Your task to perform on an android device: read, delete, or share a saved page in the chrome app Image 0: 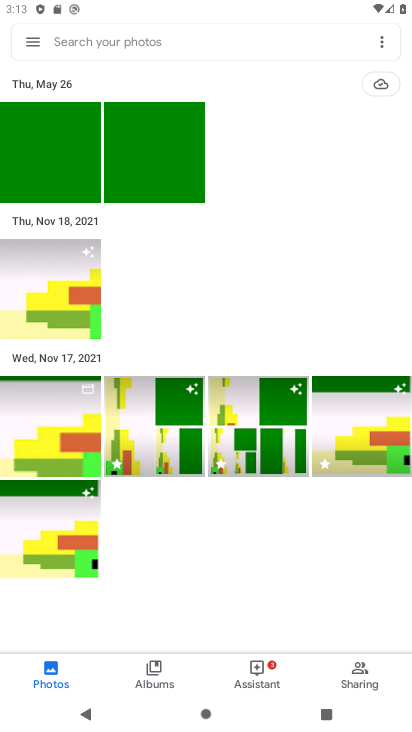
Step 0: press home button
Your task to perform on an android device: read, delete, or share a saved page in the chrome app Image 1: 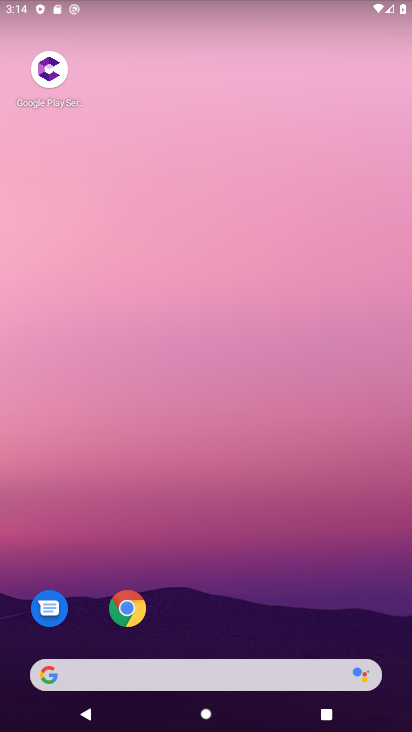
Step 1: click (113, 594)
Your task to perform on an android device: read, delete, or share a saved page in the chrome app Image 2: 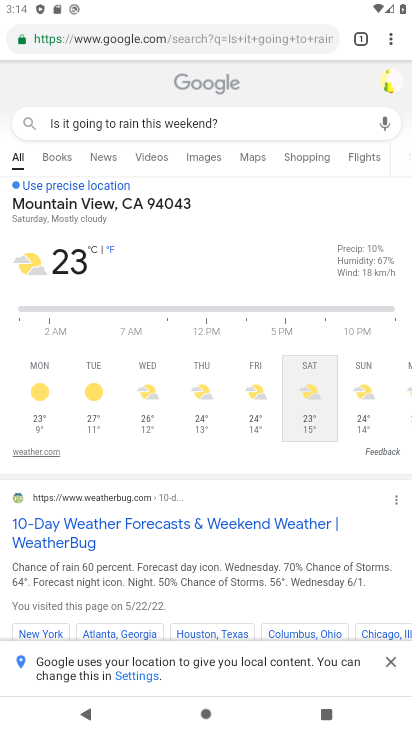
Step 2: click (392, 43)
Your task to perform on an android device: read, delete, or share a saved page in the chrome app Image 3: 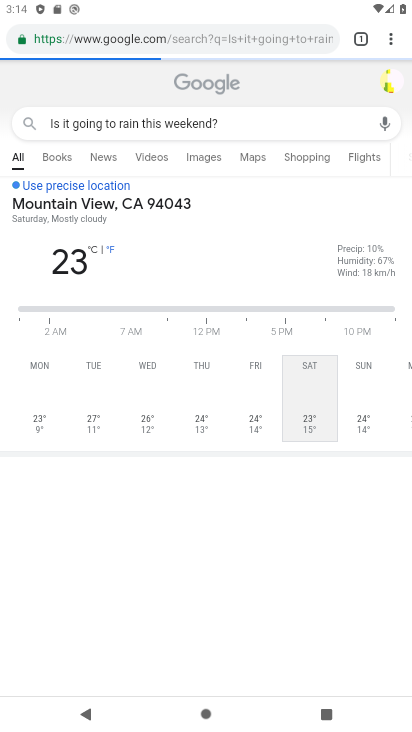
Step 3: click (389, 49)
Your task to perform on an android device: read, delete, or share a saved page in the chrome app Image 4: 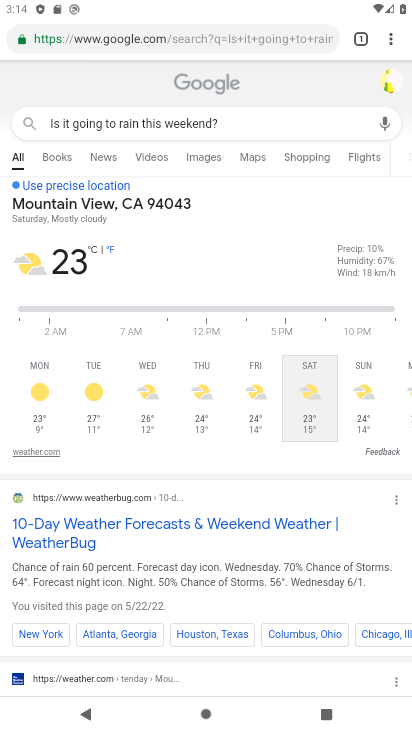
Step 4: click (388, 39)
Your task to perform on an android device: read, delete, or share a saved page in the chrome app Image 5: 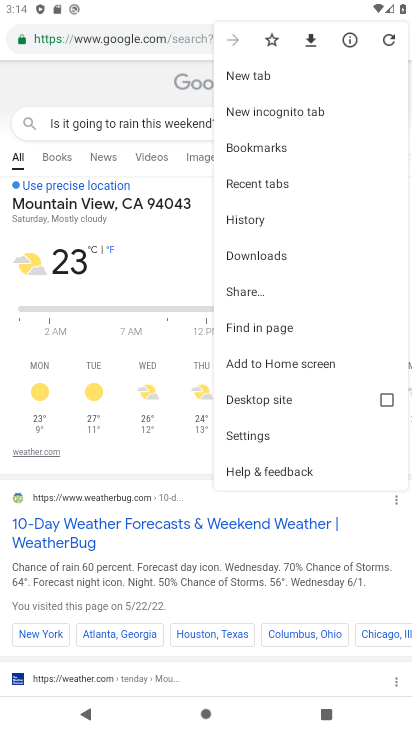
Step 5: click (270, 151)
Your task to perform on an android device: read, delete, or share a saved page in the chrome app Image 6: 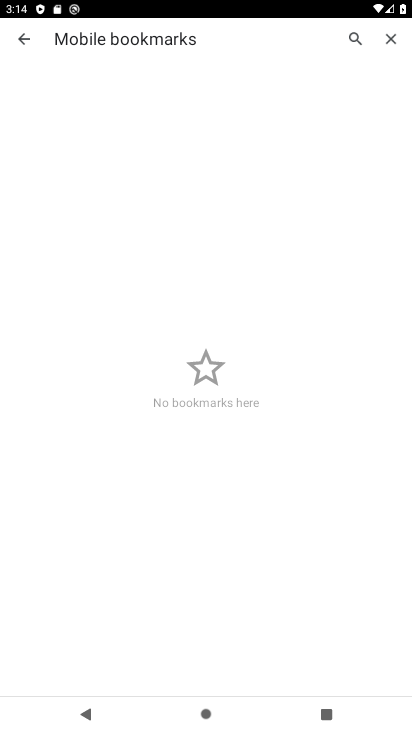
Step 6: click (25, 42)
Your task to perform on an android device: read, delete, or share a saved page in the chrome app Image 7: 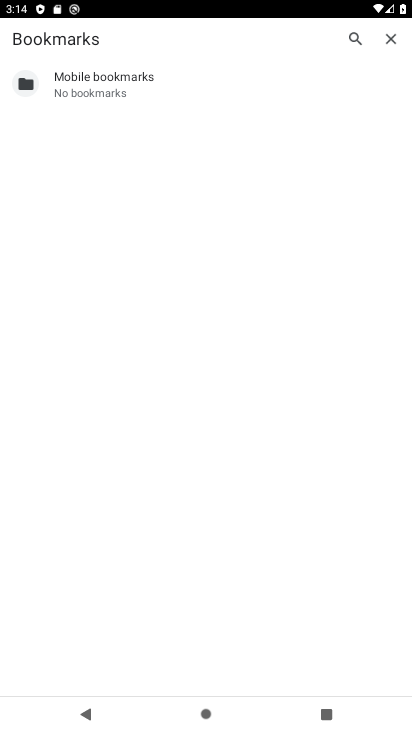
Step 7: click (391, 40)
Your task to perform on an android device: read, delete, or share a saved page in the chrome app Image 8: 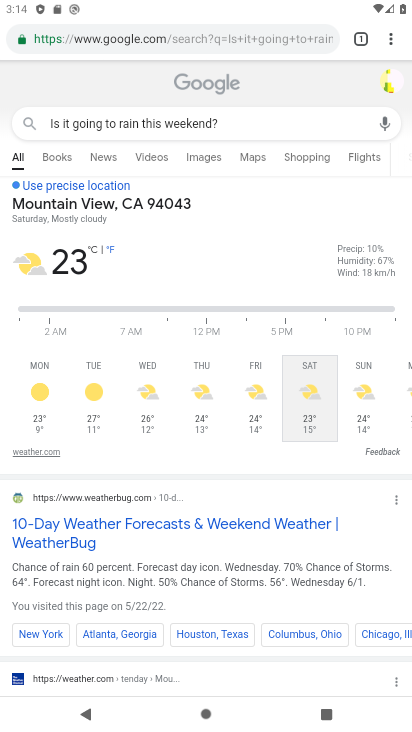
Step 8: click (382, 44)
Your task to perform on an android device: read, delete, or share a saved page in the chrome app Image 9: 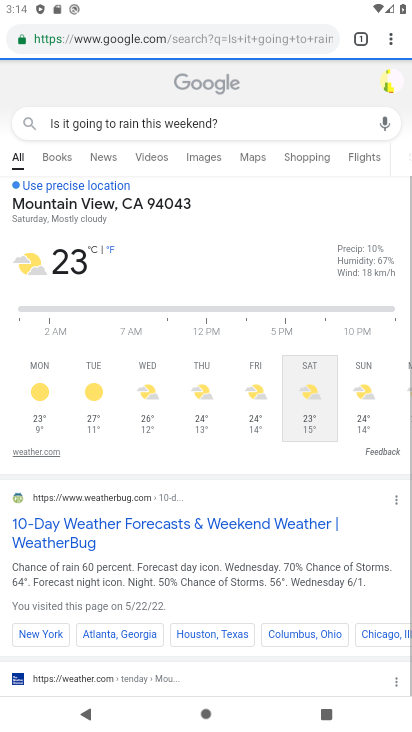
Step 9: click (384, 39)
Your task to perform on an android device: read, delete, or share a saved page in the chrome app Image 10: 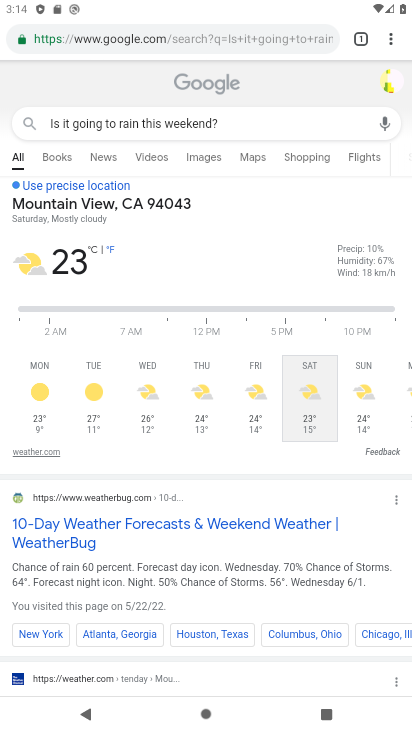
Step 10: click (388, 40)
Your task to perform on an android device: read, delete, or share a saved page in the chrome app Image 11: 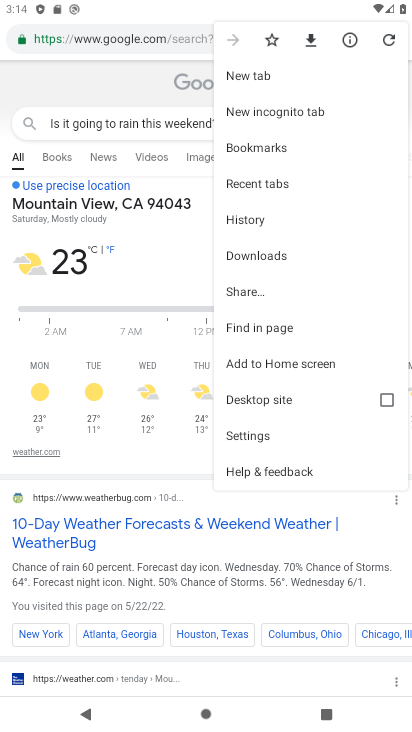
Step 11: click (276, 255)
Your task to perform on an android device: read, delete, or share a saved page in the chrome app Image 12: 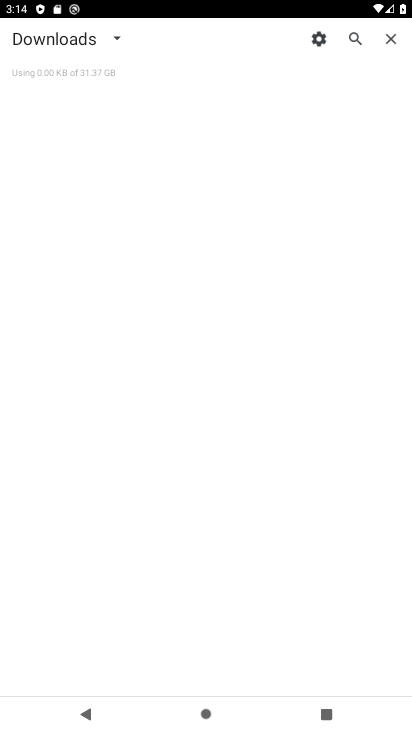
Step 12: click (107, 35)
Your task to perform on an android device: read, delete, or share a saved page in the chrome app Image 13: 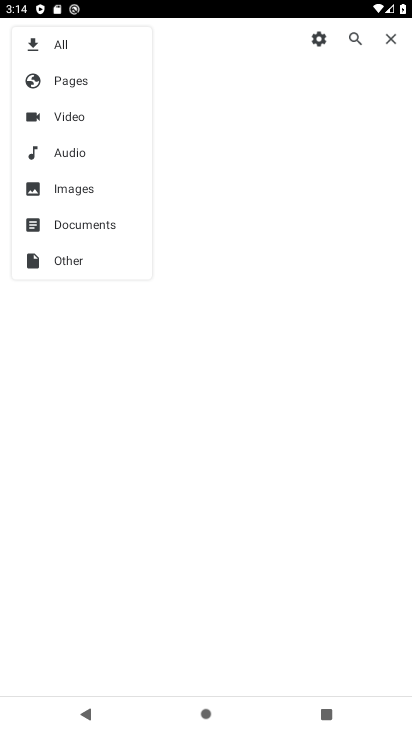
Step 13: click (88, 84)
Your task to perform on an android device: read, delete, or share a saved page in the chrome app Image 14: 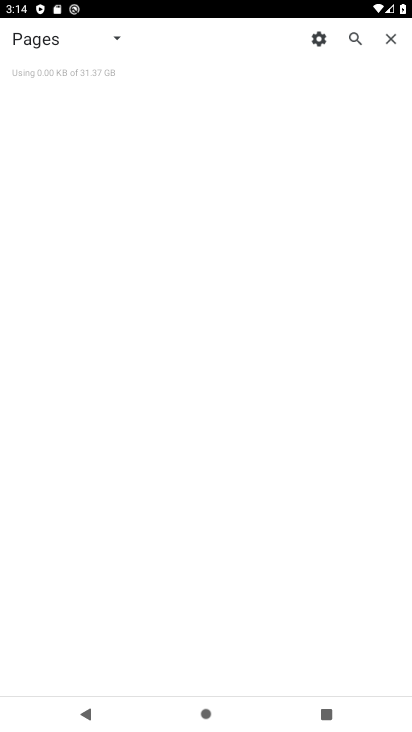
Step 14: task complete